Your task to perform on an android device: see tabs open on other devices in the chrome app Image 0: 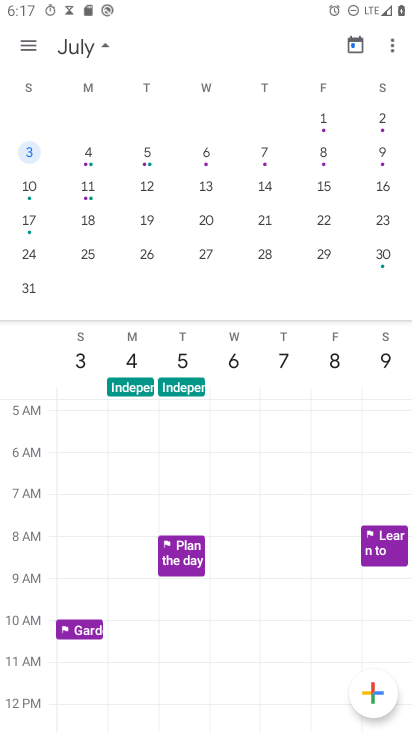
Step 0: press home button
Your task to perform on an android device: see tabs open on other devices in the chrome app Image 1: 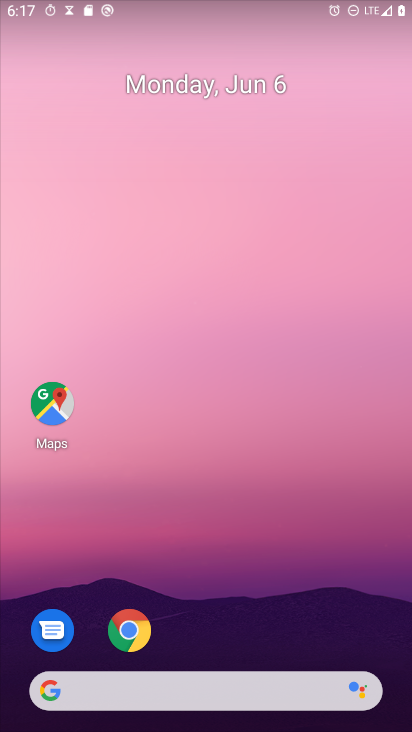
Step 1: click (137, 631)
Your task to perform on an android device: see tabs open on other devices in the chrome app Image 2: 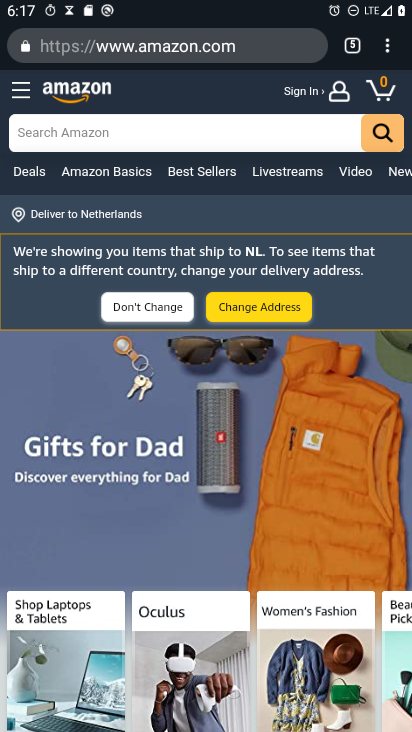
Step 2: click (382, 42)
Your task to perform on an android device: see tabs open on other devices in the chrome app Image 3: 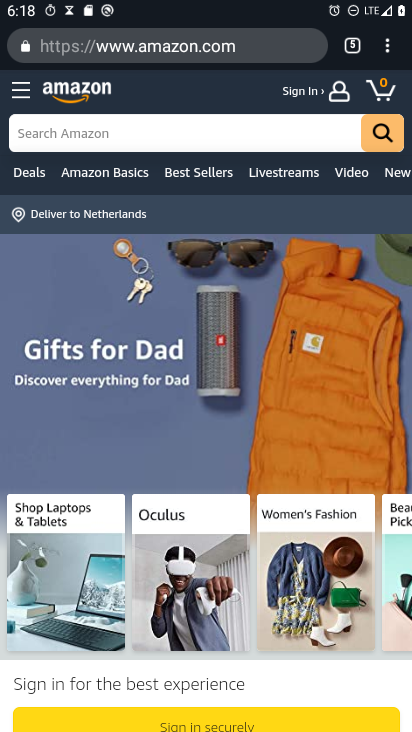
Step 3: click (386, 39)
Your task to perform on an android device: see tabs open on other devices in the chrome app Image 4: 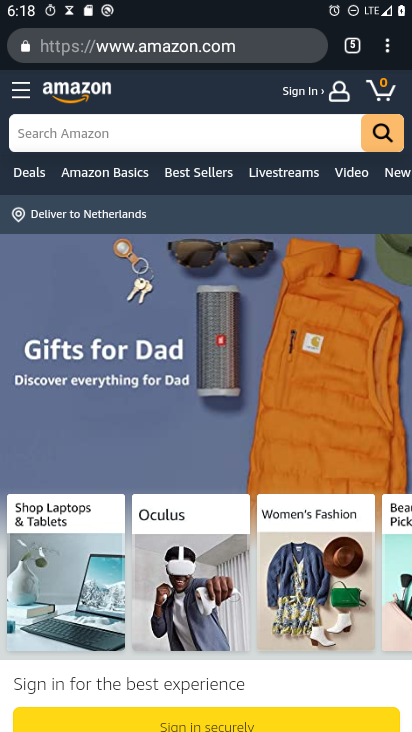
Step 4: click (391, 47)
Your task to perform on an android device: see tabs open on other devices in the chrome app Image 5: 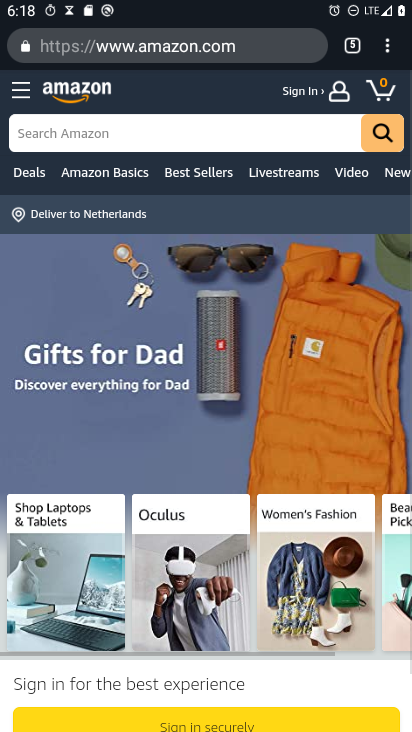
Step 5: click (389, 35)
Your task to perform on an android device: see tabs open on other devices in the chrome app Image 6: 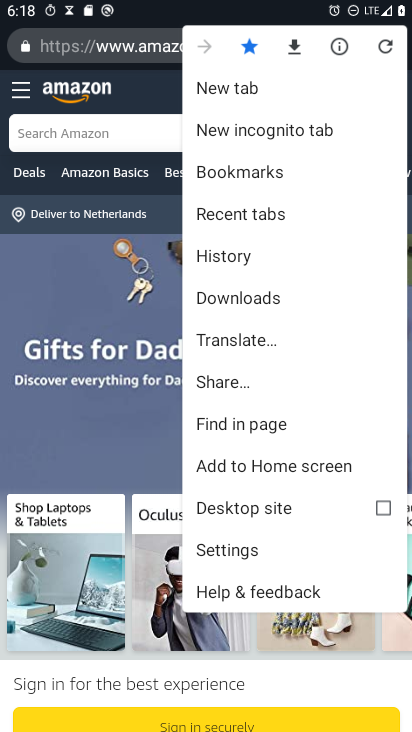
Step 6: click (274, 214)
Your task to perform on an android device: see tabs open on other devices in the chrome app Image 7: 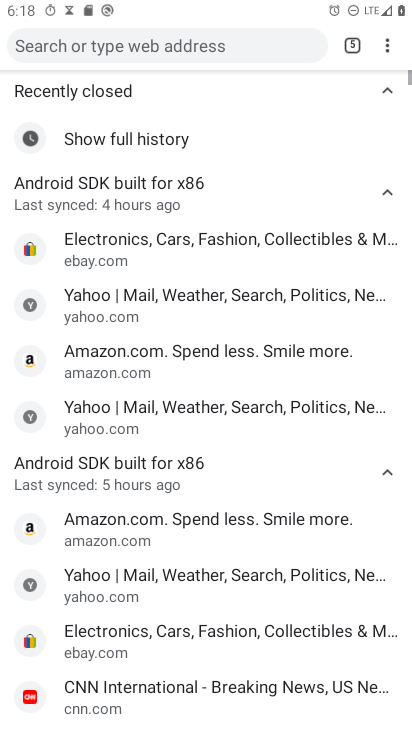
Step 7: task complete